Your task to perform on an android device: clear history in the chrome app Image 0: 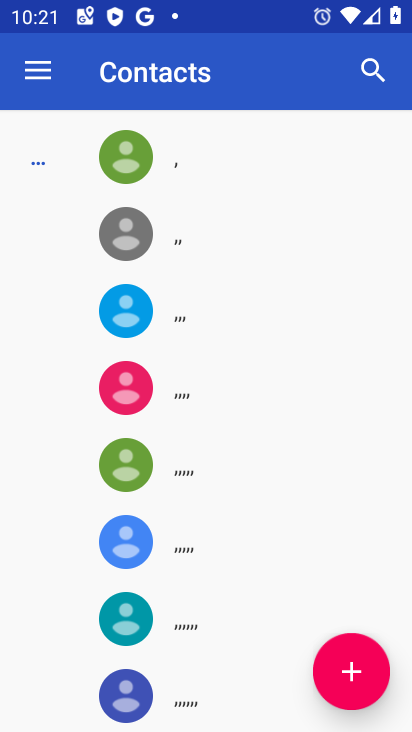
Step 0: press home button
Your task to perform on an android device: clear history in the chrome app Image 1: 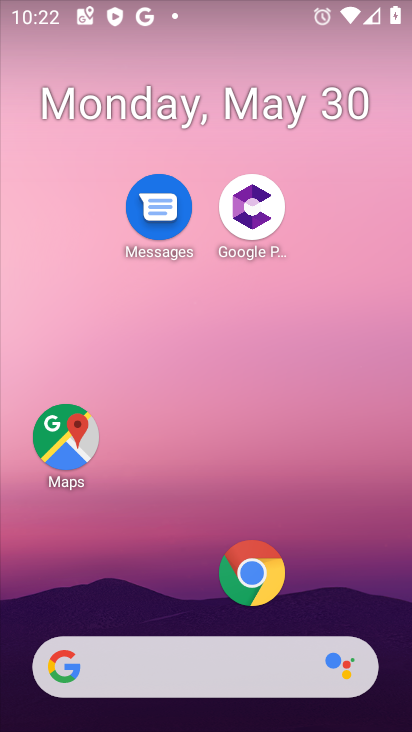
Step 1: drag from (177, 653) to (177, 69)
Your task to perform on an android device: clear history in the chrome app Image 2: 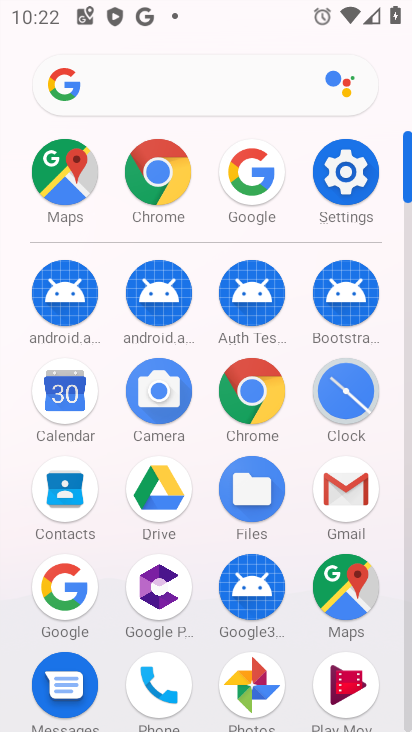
Step 2: click (172, 193)
Your task to perform on an android device: clear history in the chrome app Image 3: 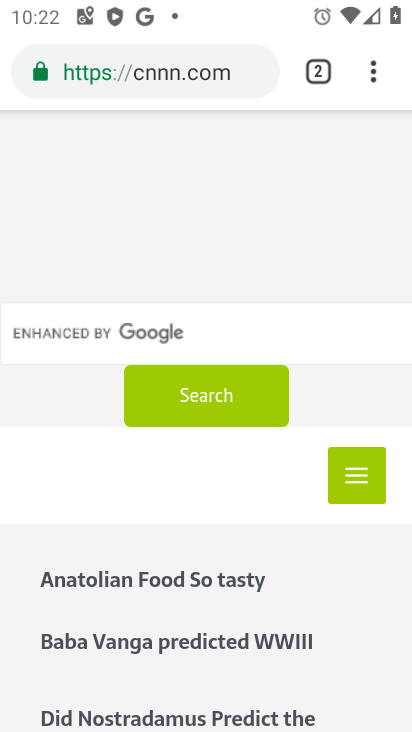
Step 3: click (379, 86)
Your task to perform on an android device: clear history in the chrome app Image 4: 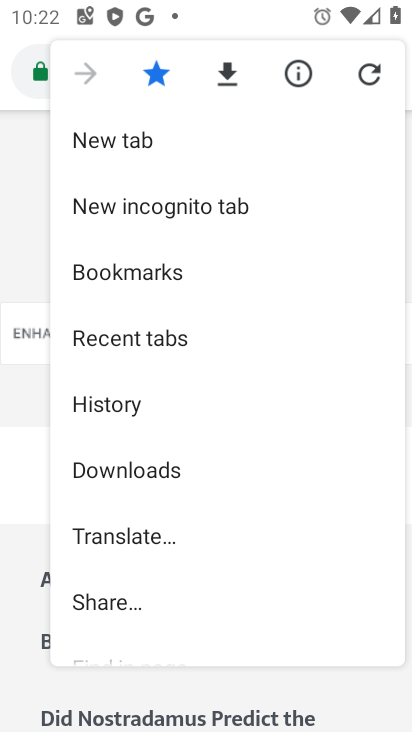
Step 4: click (138, 409)
Your task to perform on an android device: clear history in the chrome app Image 5: 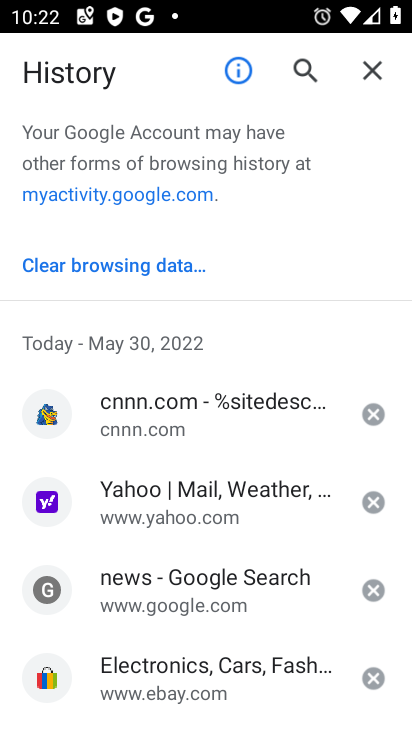
Step 5: click (134, 279)
Your task to perform on an android device: clear history in the chrome app Image 6: 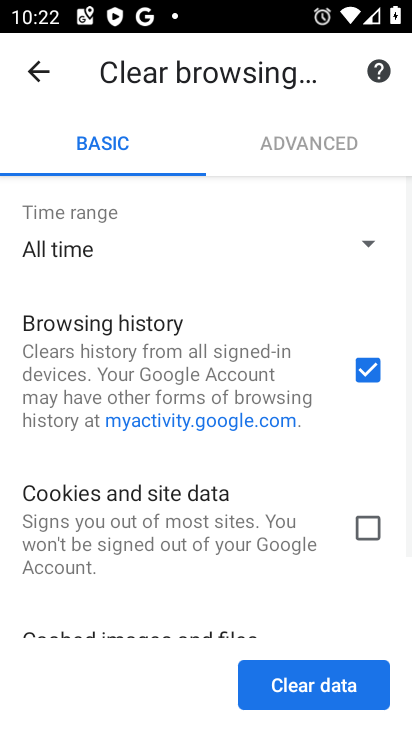
Step 6: click (338, 689)
Your task to perform on an android device: clear history in the chrome app Image 7: 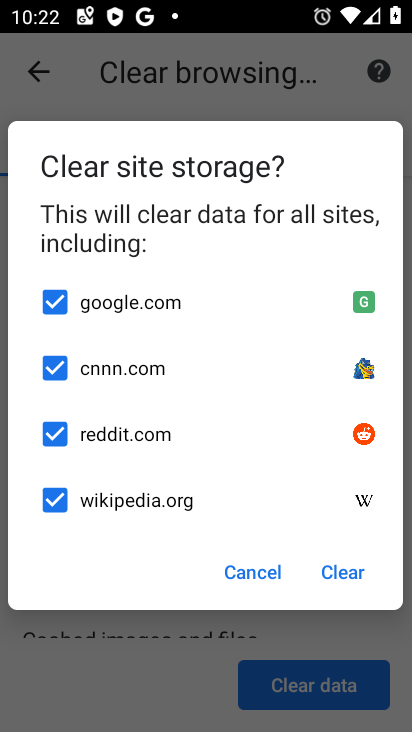
Step 7: click (343, 566)
Your task to perform on an android device: clear history in the chrome app Image 8: 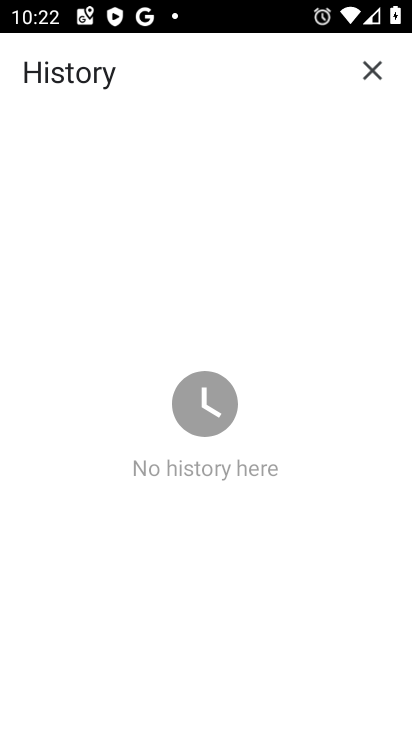
Step 8: task complete